Your task to perform on an android device: change the clock display to digital Image 0: 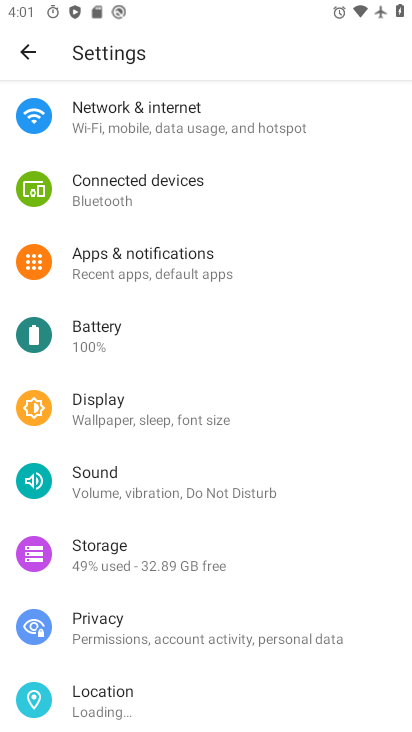
Step 0: press back button
Your task to perform on an android device: change the clock display to digital Image 1: 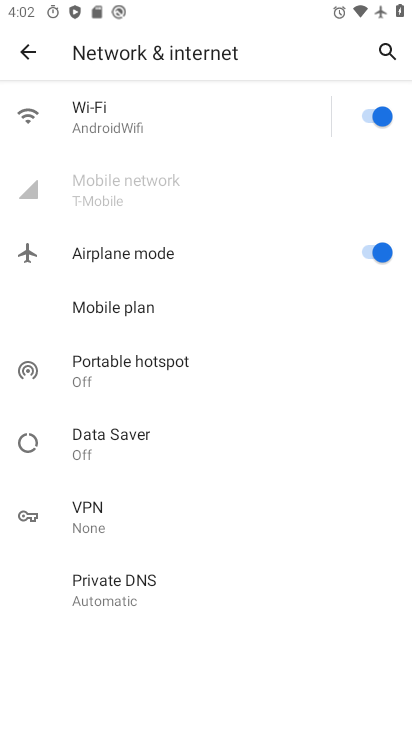
Step 1: press home button
Your task to perform on an android device: change the clock display to digital Image 2: 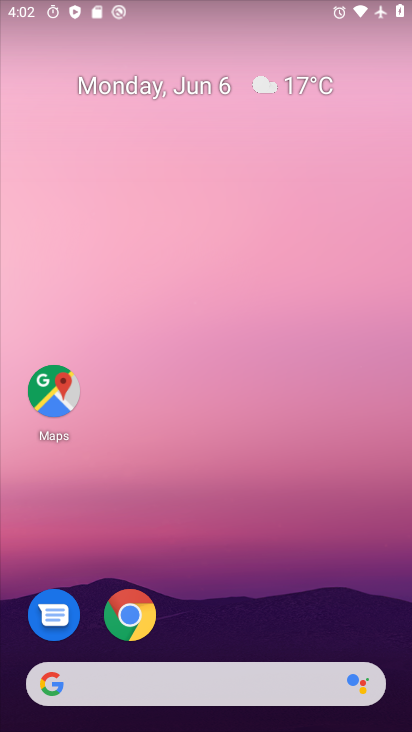
Step 2: drag from (245, 649) to (262, 3)
Your task to perform on an android device: change the clock display to digital Image 3: 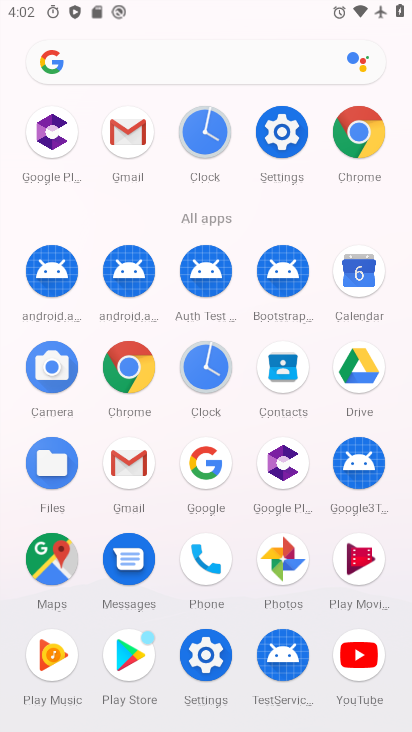
Step 3: drag from (0, 566) to (30, 183)
Your task to perform on an android device: change the clock display to digital Image 4: 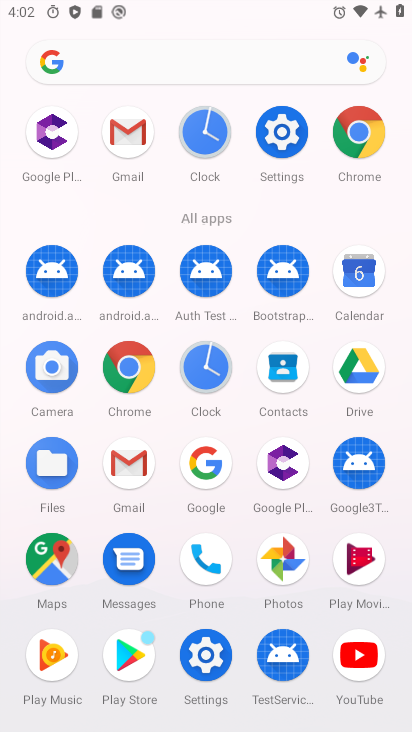
Step 4: click (206, 372)
Your task to perform on an android device: change the clock display to digital Image 5: 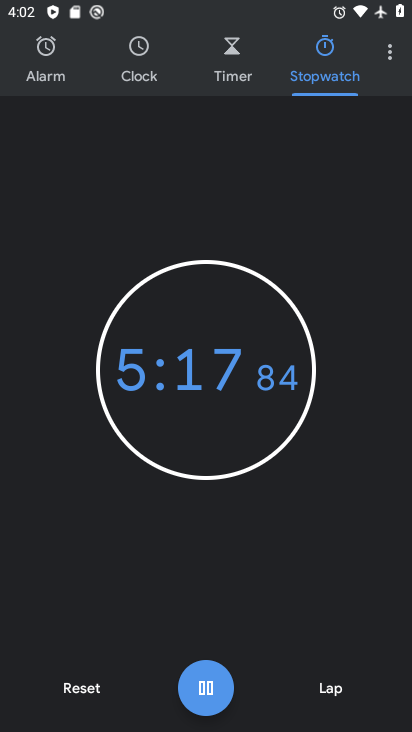
Step 5: task complete